Your task to perform on an android device: Search for Italian restaurants on Maps Image 0: 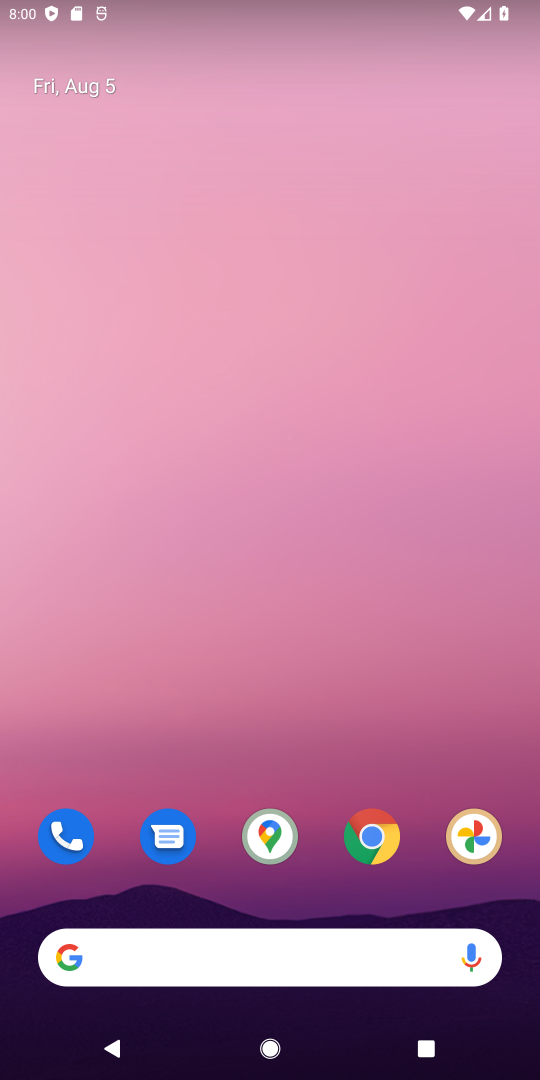
Step 0: click (275, 826)
Your task to perform on an android device: Search for Italian restaurants on Maps Image 1: 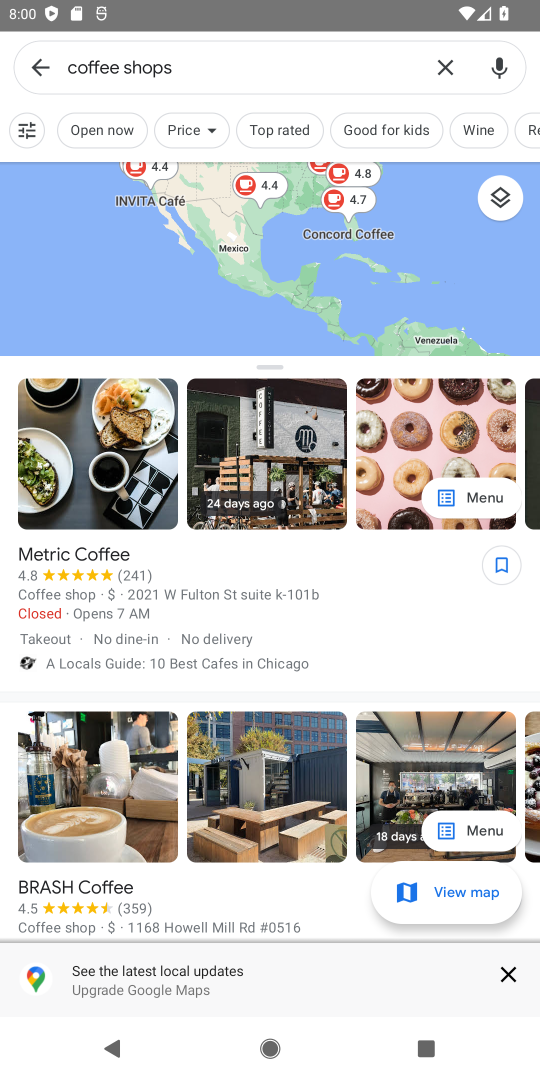
Step 1: click (441, 63)
Your task to perform on an android device: Search for Italian restaurants on Maps Image 2: 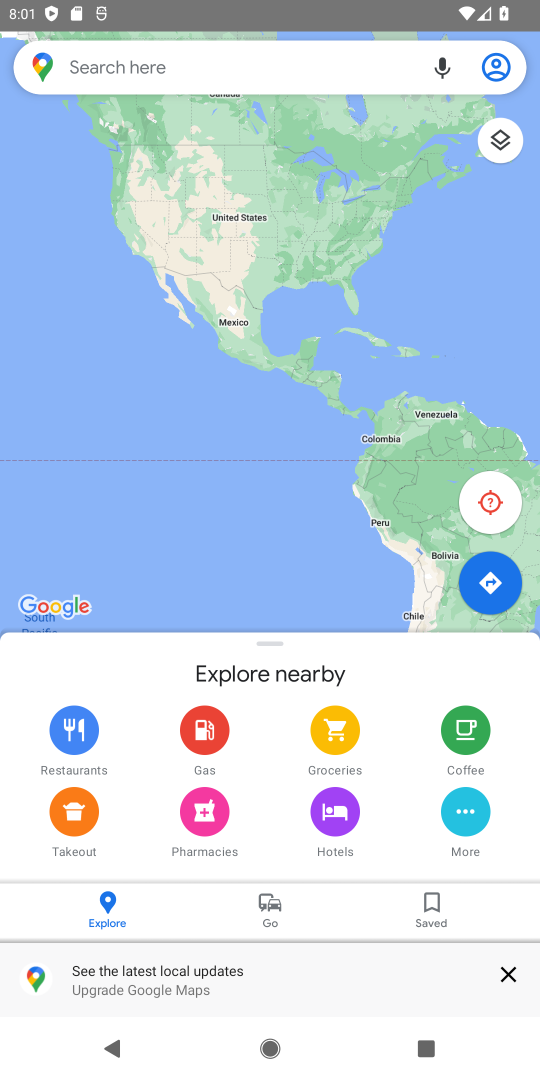
Step 2: click (219, 63)
Your task to perform on an android device: Search for Italian restaurants on Maps Image 3: 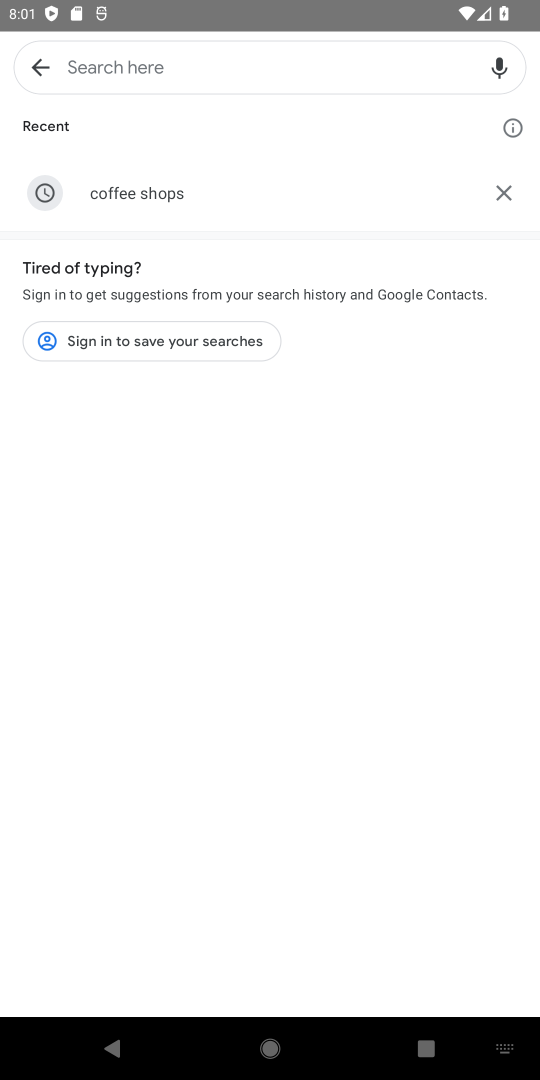
Step 3: type "italian"
Your task to perform on an android device: Search for Italian restaurants on Maps Image 4: 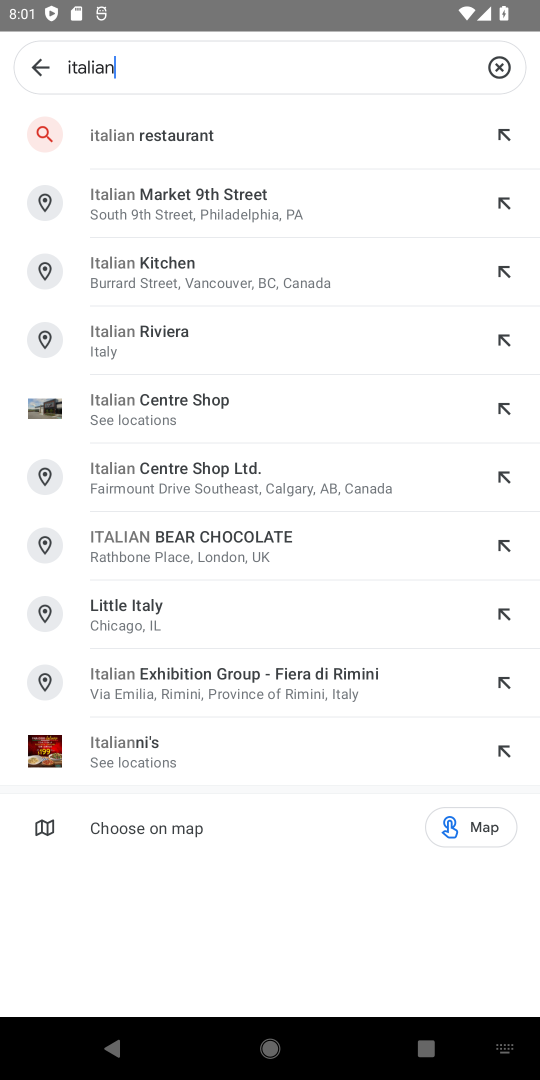
Step 4: click (191, 134)
Your task to perform on an android device: Search for Italian restaurants on Maps Image 5: 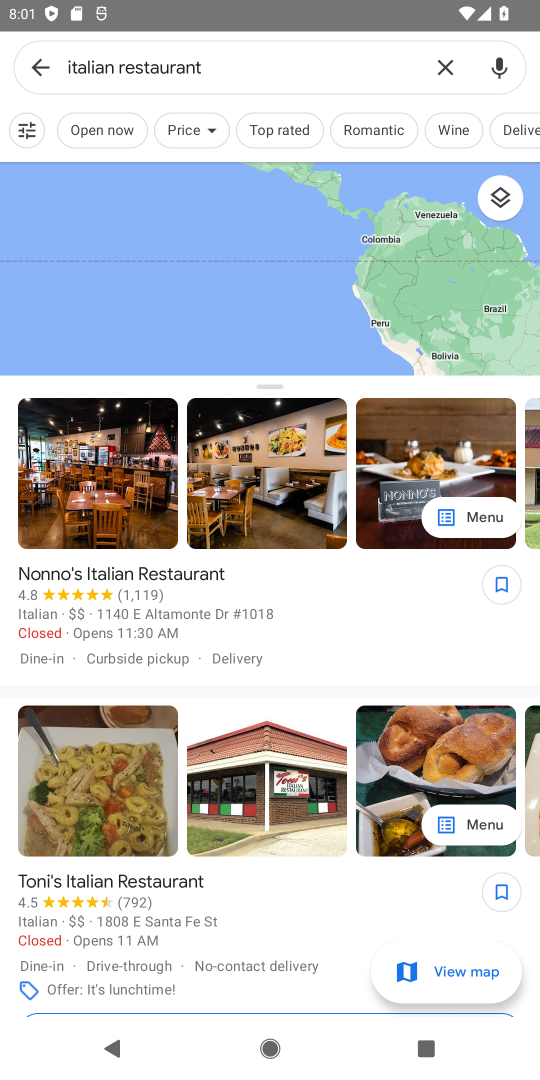
Step 5: task complete